Your task to perform on an android device: Search for vegetarian restaurants on Maps Image 0: 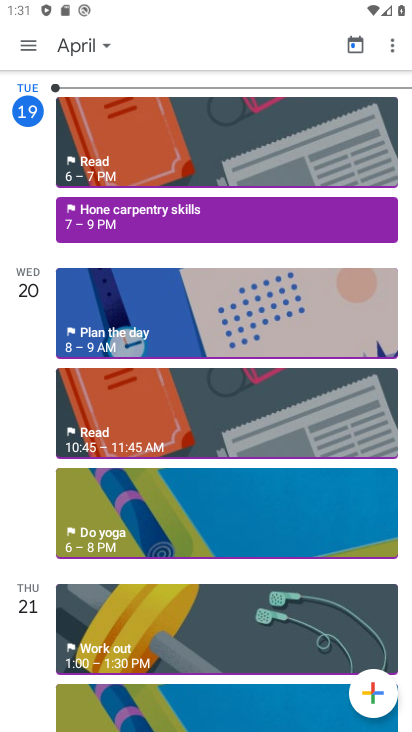
Step 0: press home button
Your task to perform on an android device: Search for vegetarian restaurants on Maps Image 1: 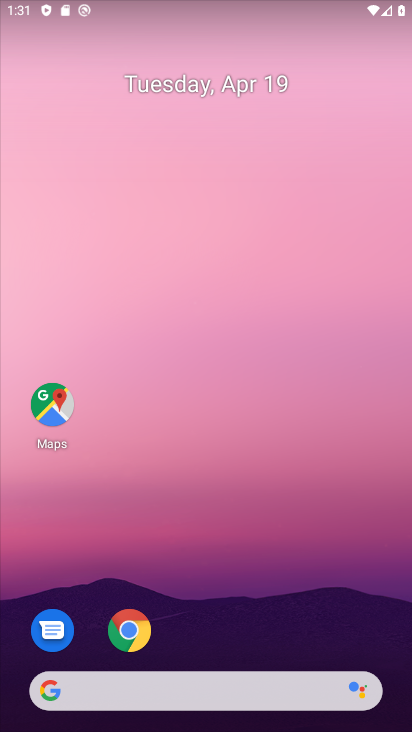
Step 1: click (45, 409)
Your task to perform on an android device: Search for vegetarian restaurants on Maps Image 2: 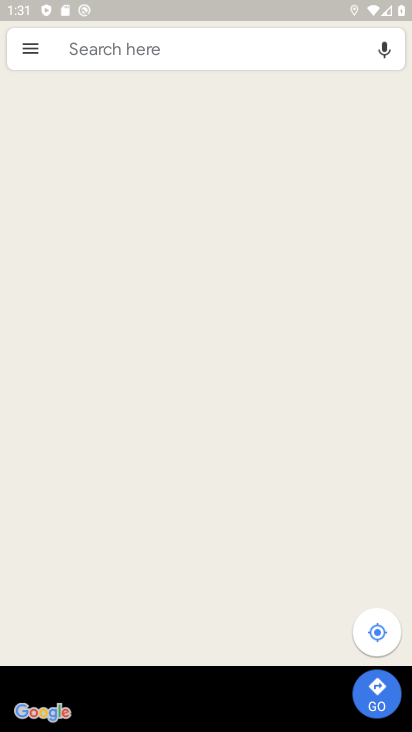
Step 2: click (119, 40)
Your task to perform on an android device: Search for vegetarian restaurants on Maps Image 3: 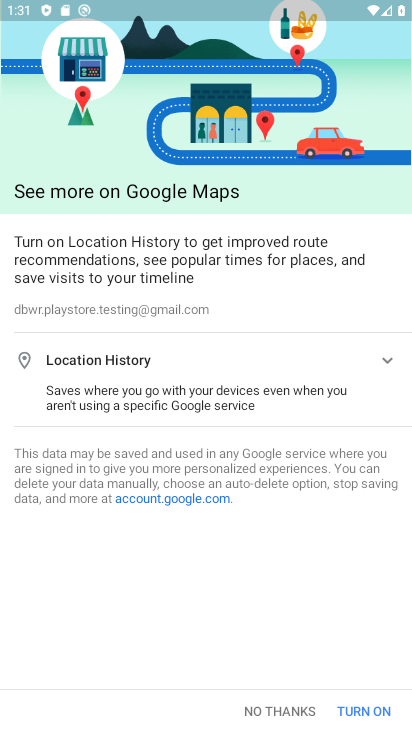
Step 3: click (366, 712)
Your task to perform on an android device: Search for vegetarian restaurants on Maps Image 4: 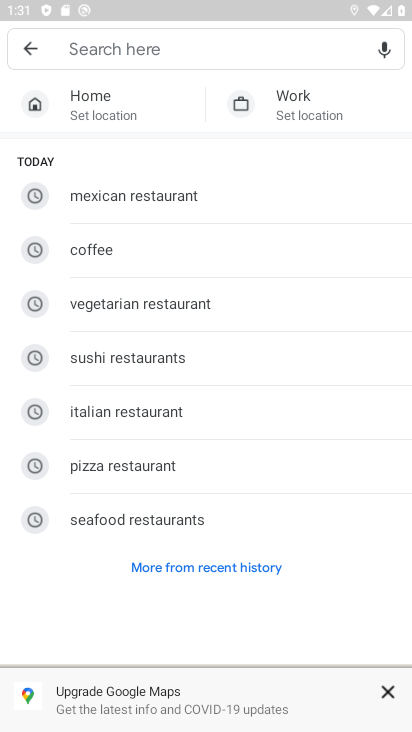
Step 4: click (159, 298)
Your task to perform on an android device: Search for vegetarian restaurants on Maps Image 5: 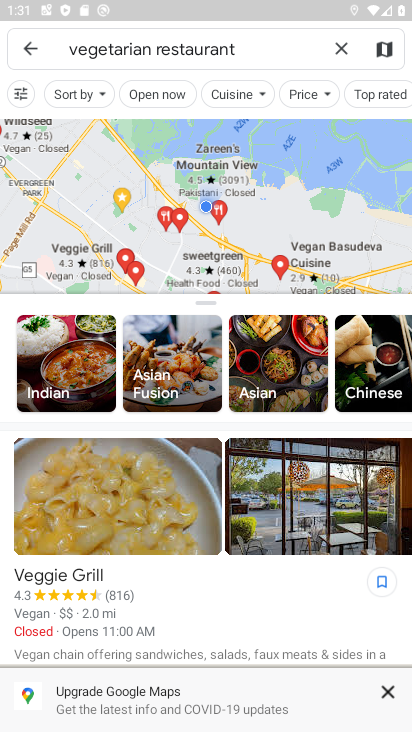
Step 5: task complete